Your task to perform on an android device: Open Amazon Image 0: 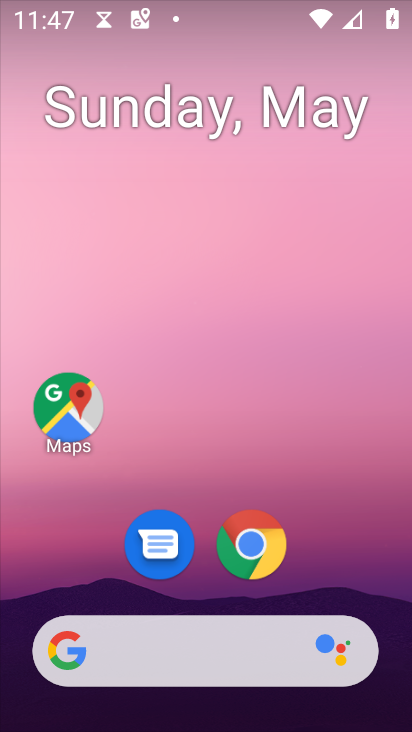
Step 0: click (246, 545)
Your task to perform on an android device: Open Amazon Image 1: 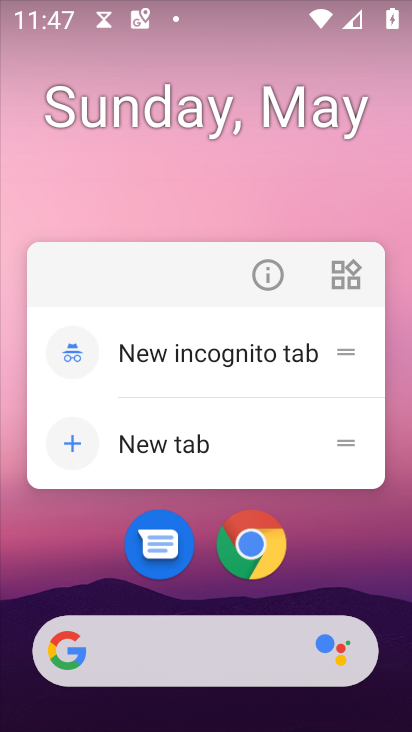
Step 1: click (259, 541)
Your task to perform on an android device: Open Amazon Image 2: 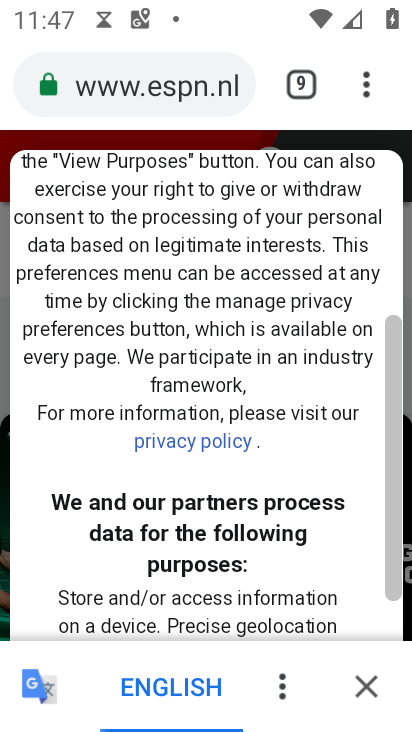
Step 2: click (370, 82)
Your task to perform on an android device: Open Amazon Image 3: 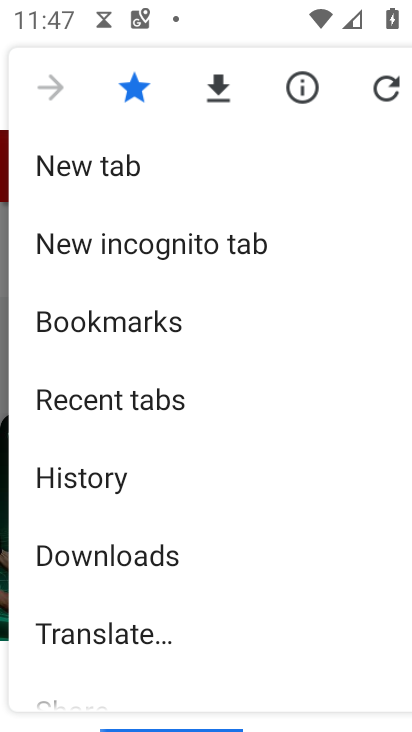
Step 3: click (140, 146)
Your task to perform on an android device: Open Amazon Image 4: 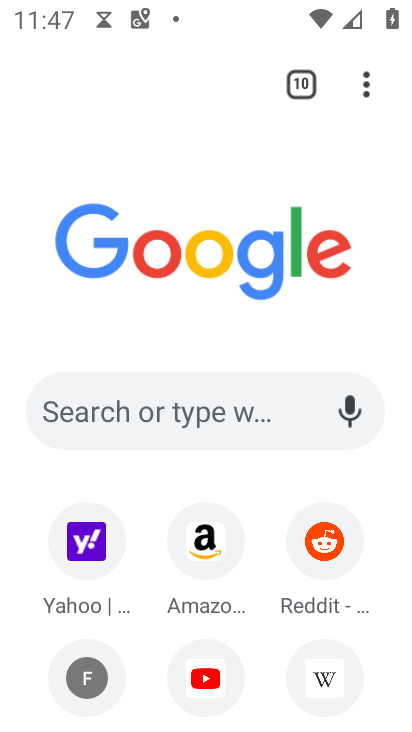
Step 4: click (222, 549)
Your task to perform on an android device: Open Amazon Image 5: 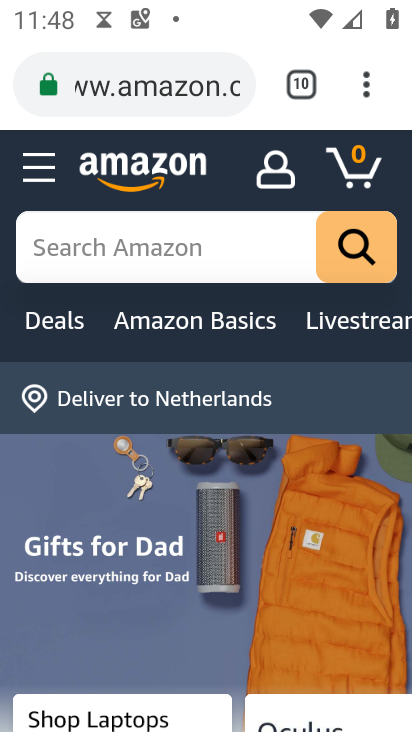
Step 5: task complete